Your task to perform on an android device: empty trash in the gmail app Image 0: 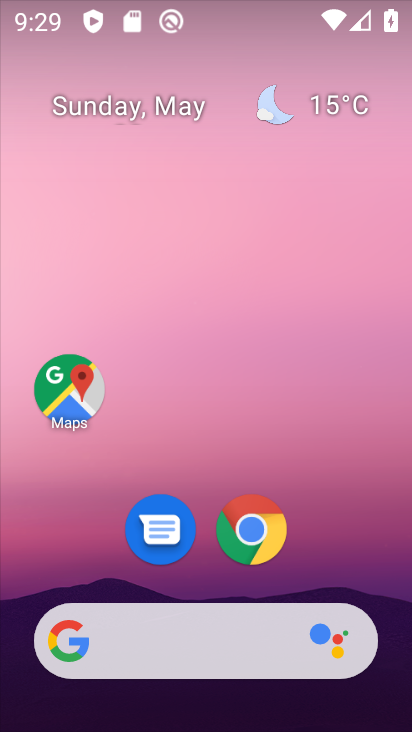
Step 0: drag from (214, 598) to (290, 71)
Your task to perform on an android device: empty trash in the gmail app Image 1: 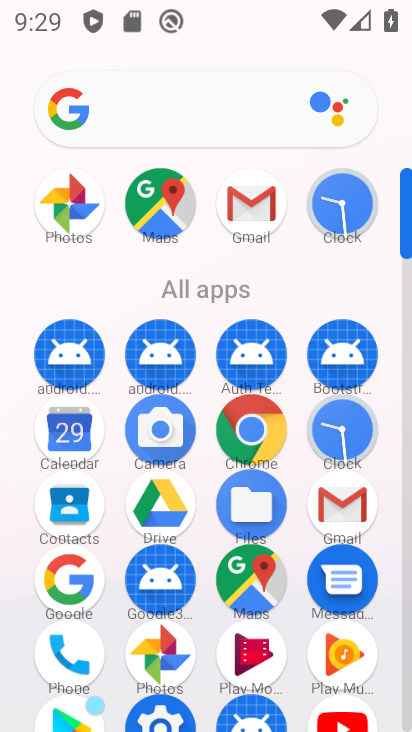
Step 1: click (332, 493)
Your task to perform on an android device: empty trash in the gmail app Image 2: 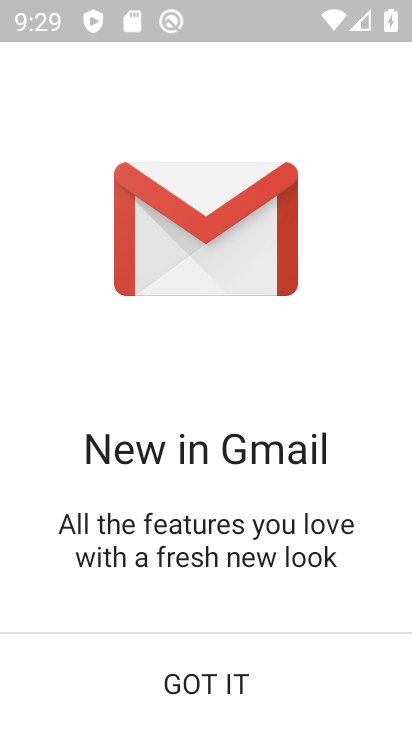
Step 2: click (233, 666)
Your task to perform on an android device: empty trash in the gmail app Image 3: 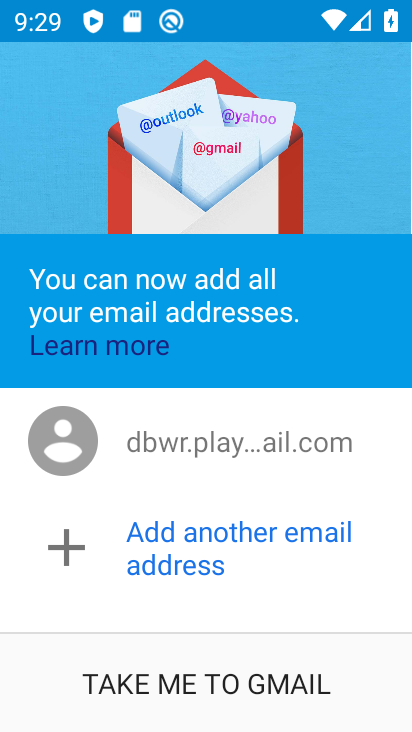
Step 3: click (233, 666)
Your task to perform on an android device: empty trash in the gmail app Image 4: 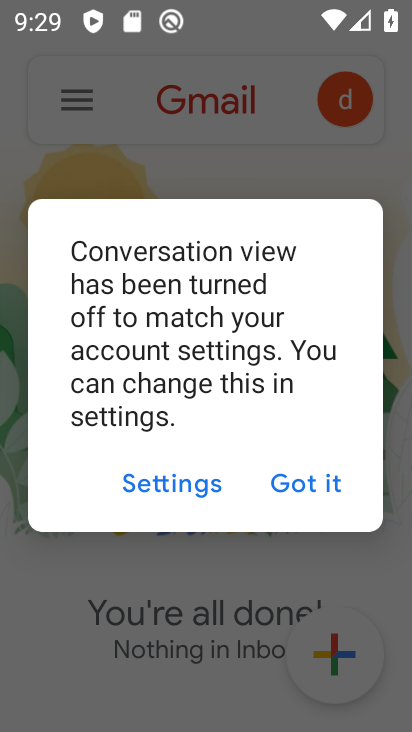
Step 4: click (280, 472)
Your task to perform on an android device: empty trash in the gmail app Image 5: 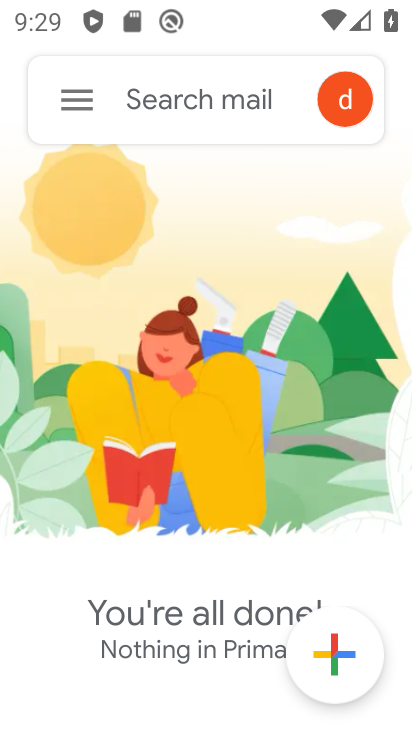
Step 5: click (74, 107)
Your task to perform on an android device: empty trash in the gmail app Image 6: 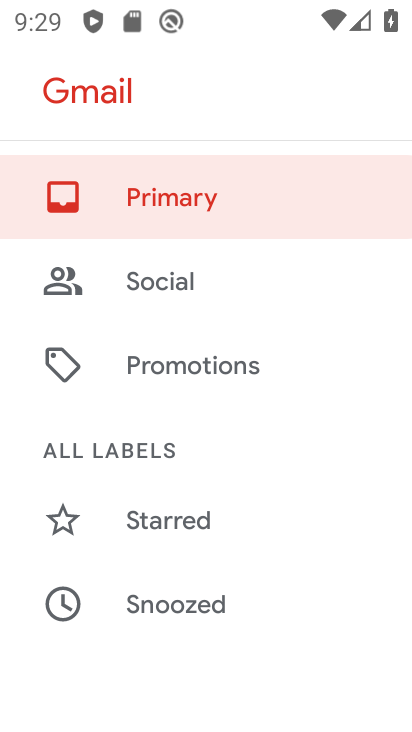
Step 6: drag from (121, 573) to (168, 74)
Your task to perform on an android device: empty trash in the gmail app Image 7: 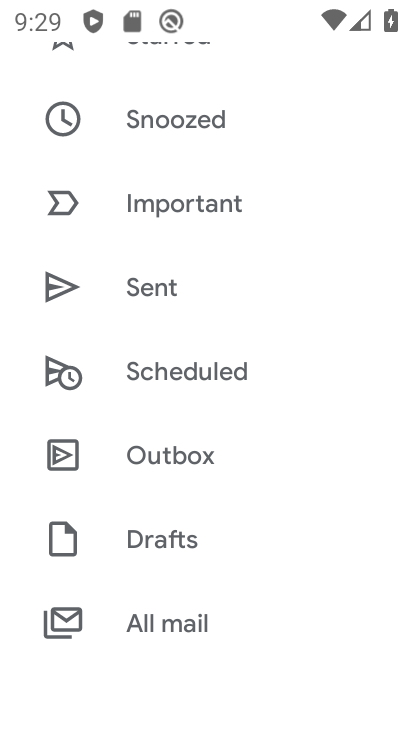
Step 7: drag from (193, 527) to (213, 225)
Your task to perform on an android device: empty trash in the gmail app Image 8: 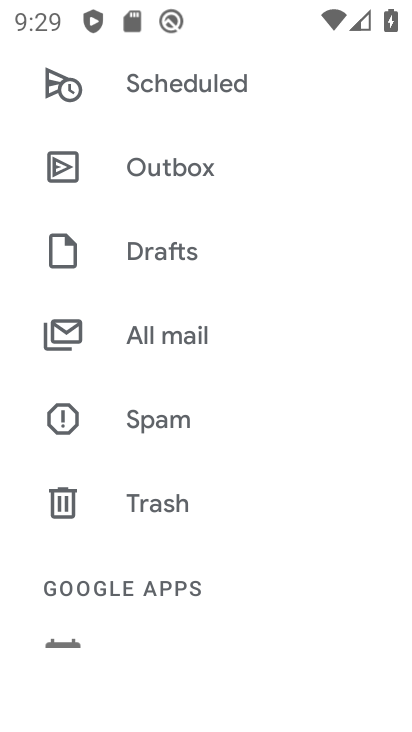
Step 8: click (185, 507)
Your task to perform on an android device: empty trash in the gmail app Image 9: 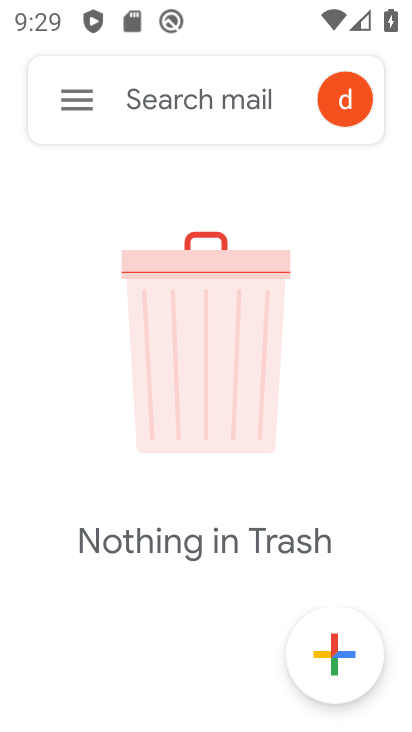
Step 9: task complete